Your task to perform on an android device: toggle translation in the chrome app Image 0: 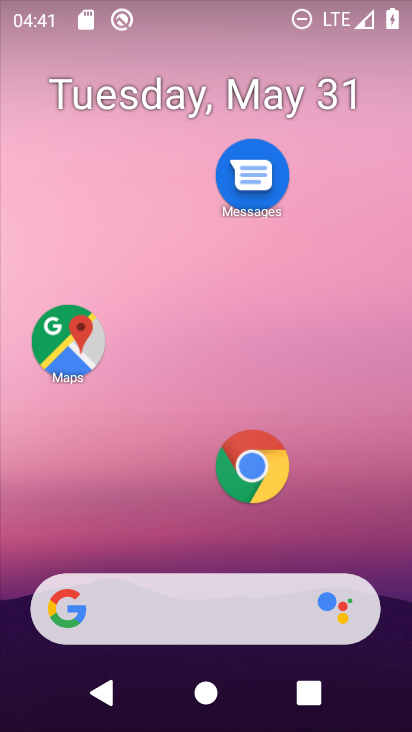
Step 0: click (257, 460)
Your task to perform on an android device: toggle translation in the chrome app Image 1: 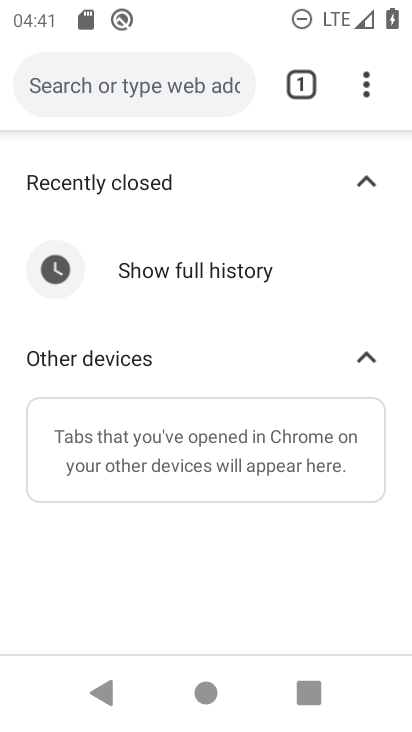
Step 1: drag from (355, 87) to (64, 508)
Your task to perform on an android device: toggle translation in the chrome app Image 2: 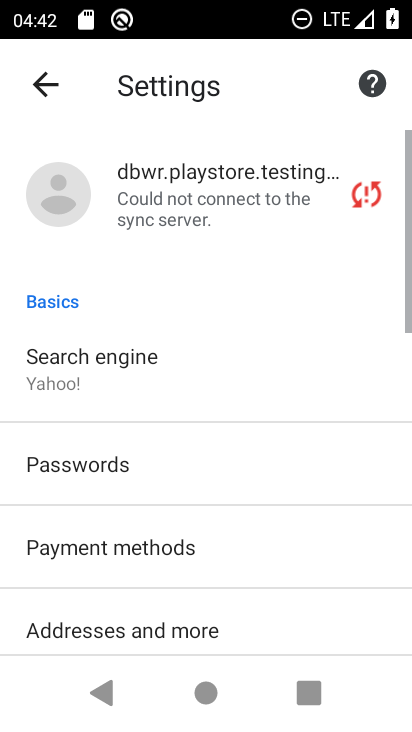
Step 2: drag from (163, 619) to (246, 88)
Your task to perform on an android device: toggle translation in the chrome app Image 3: 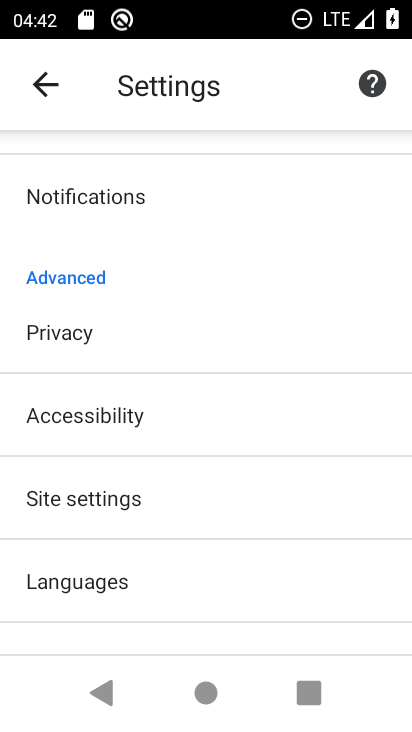
Step 3: click (105, 583)
Your task to perform on an android device: toggle translation in the chrome app Image 4: 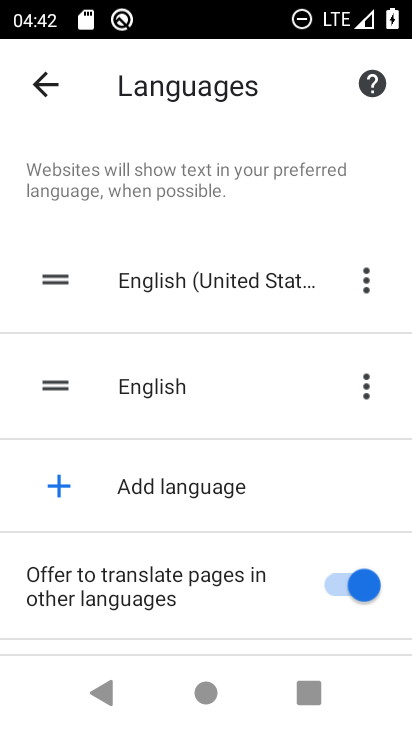
Step 4: click (368, 578)
Your task to perform on an android device: toggle translation in the chrome app Image 5: 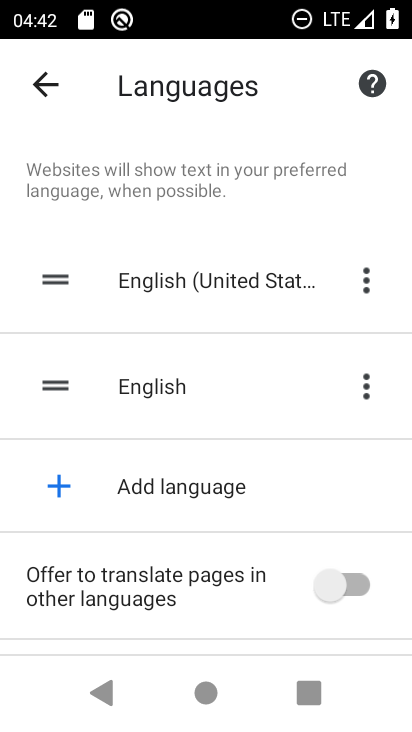
Step 5: task complete